Your task to perform on an android device: check android version Image 0: 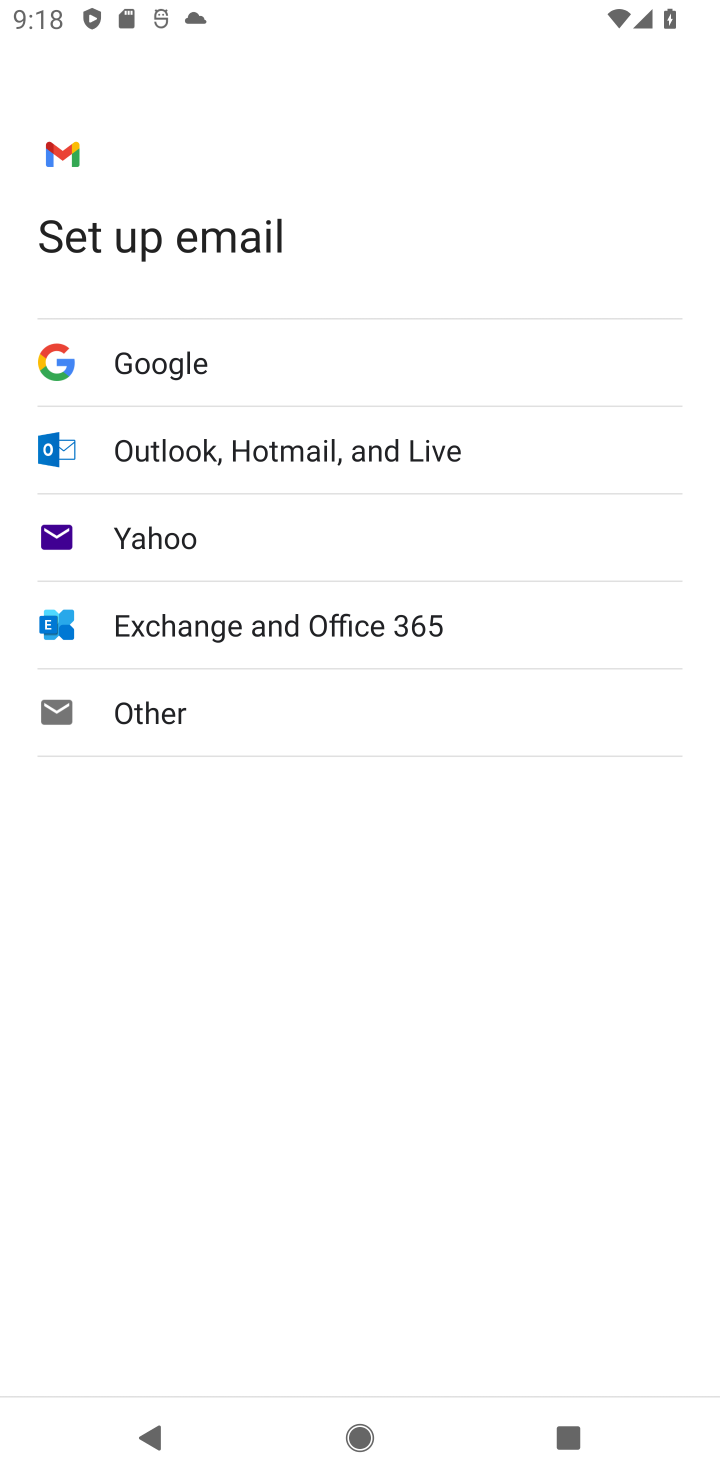
Step 0: press home button
Your task to perform on an android device: check android version Image 1: 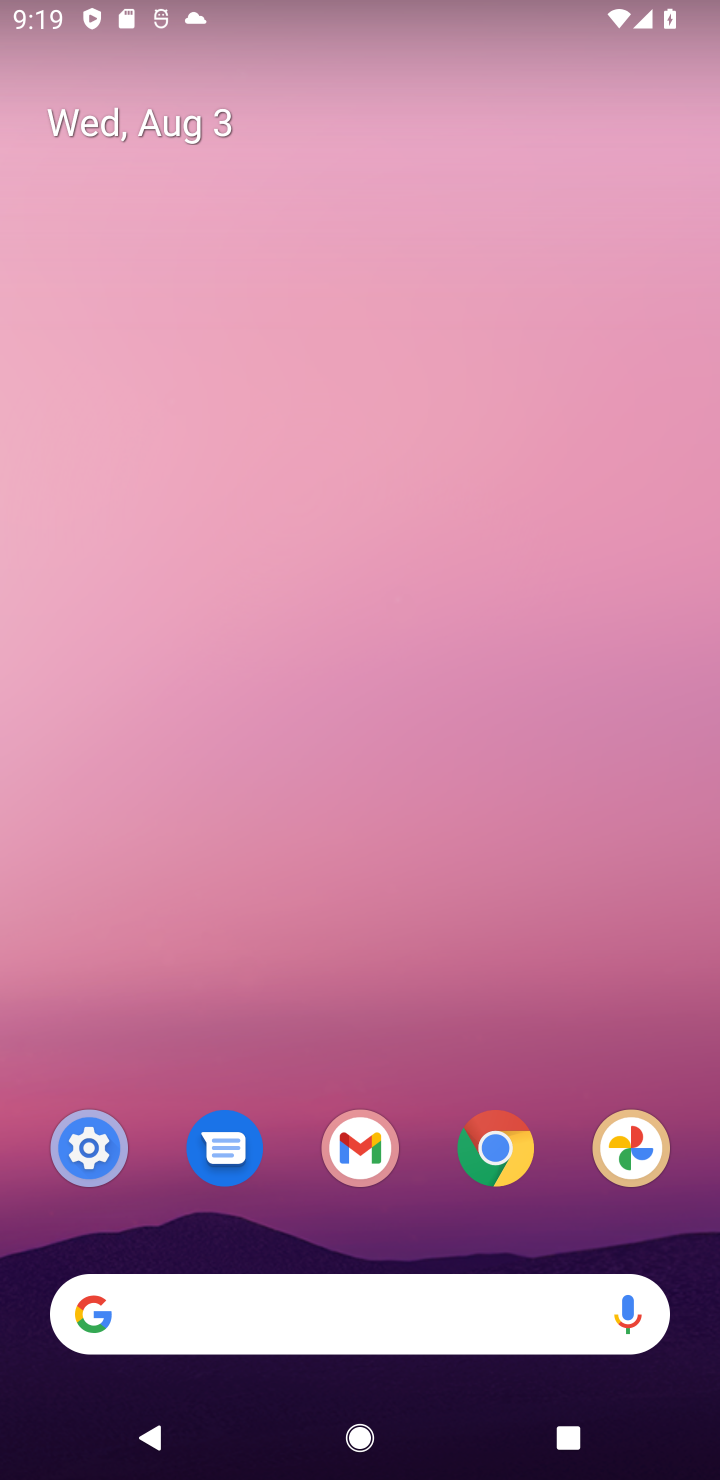
Step 1: drag from (410, 900) to (426, 463)
Your task to perform on an android device: check android version Image 2: 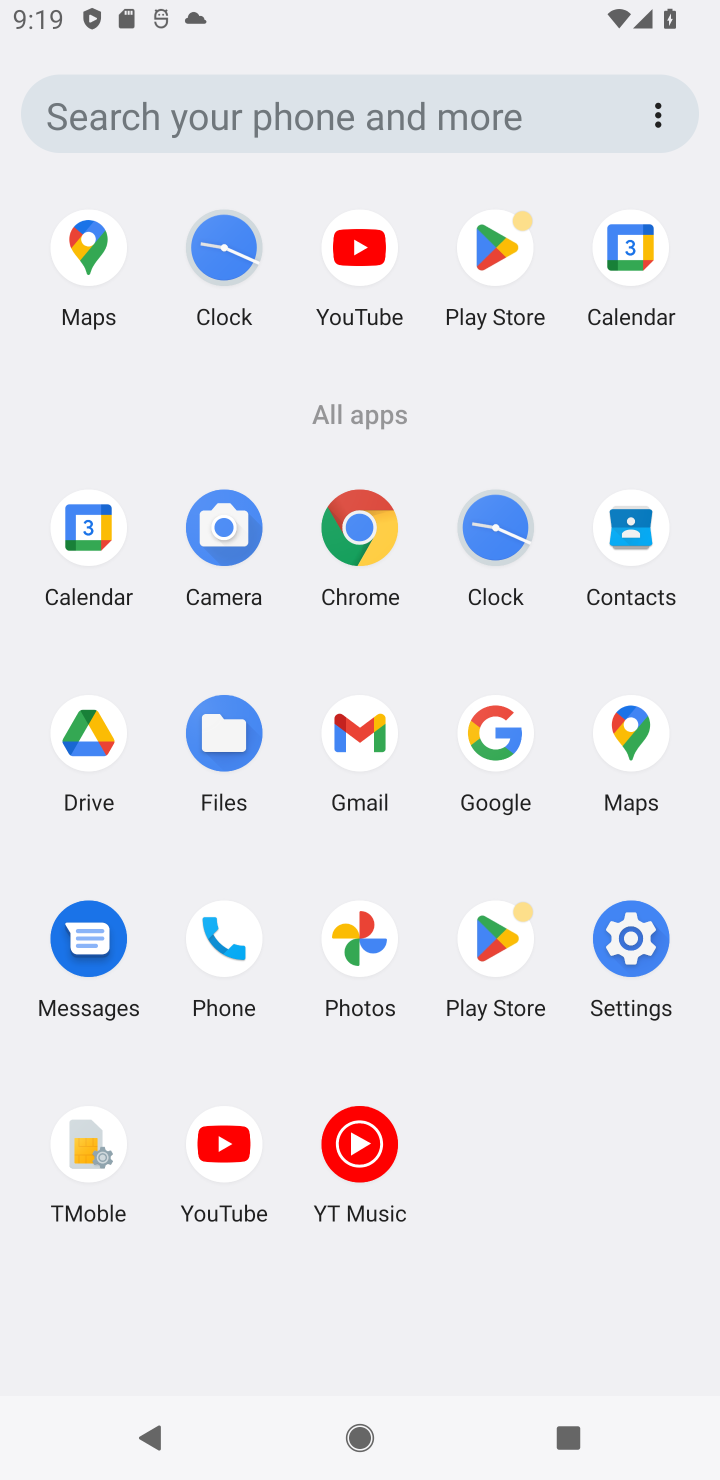
Step 2: click (630, 941)
Your task to perform on an android device: check android version Image 3: 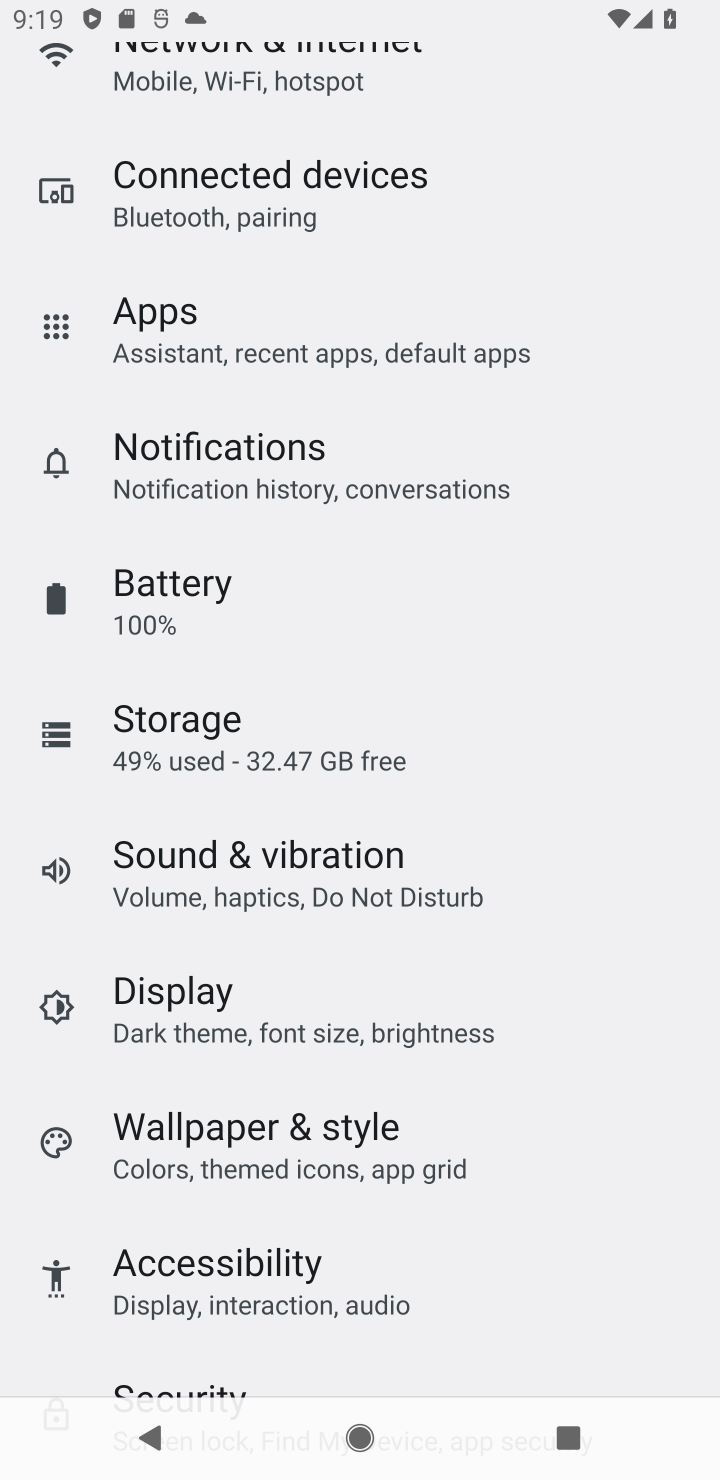
Step 3: drag from (368, 1179) to (453, 433)
Your task to perform on an android device: check android version Image 4: 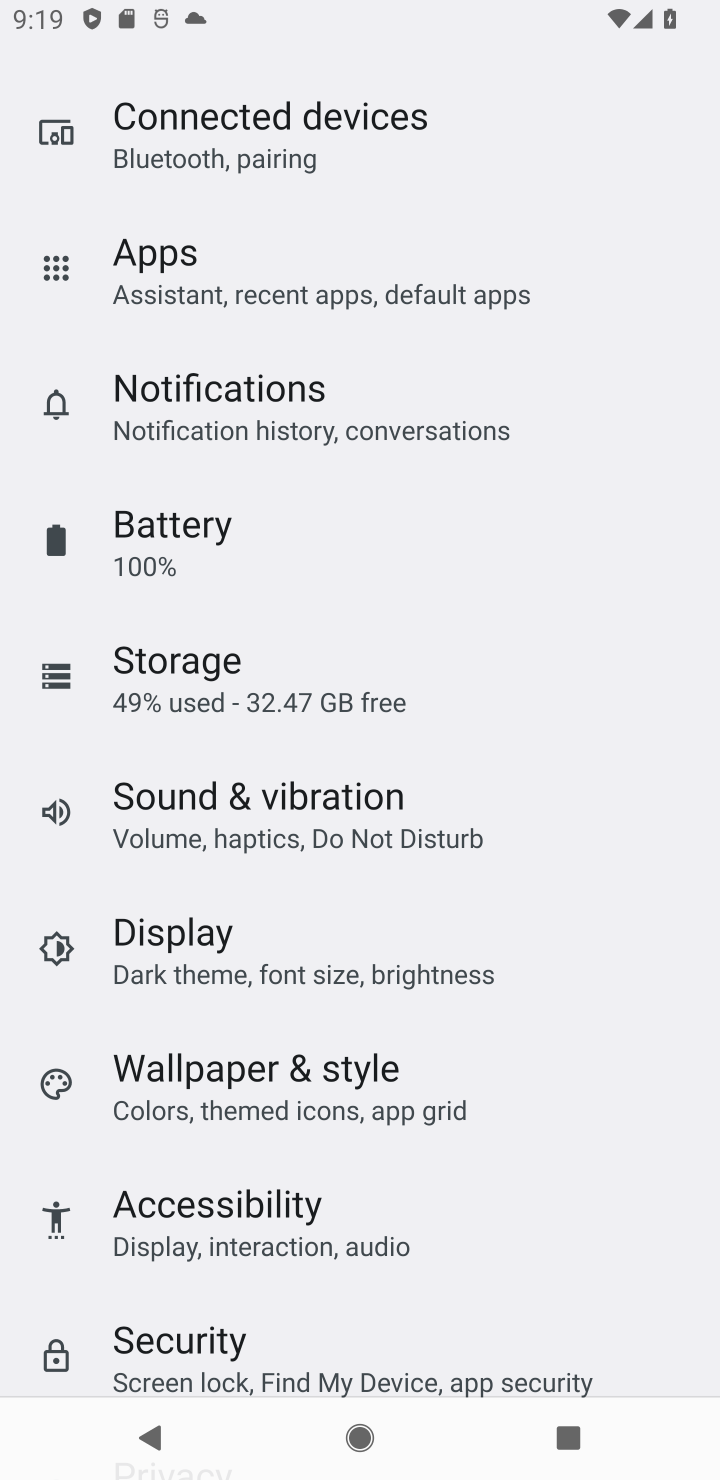
Step 4: drag from (263, 1307) to (294, 461)
Your task to perform on an android device: check android version Image 5: 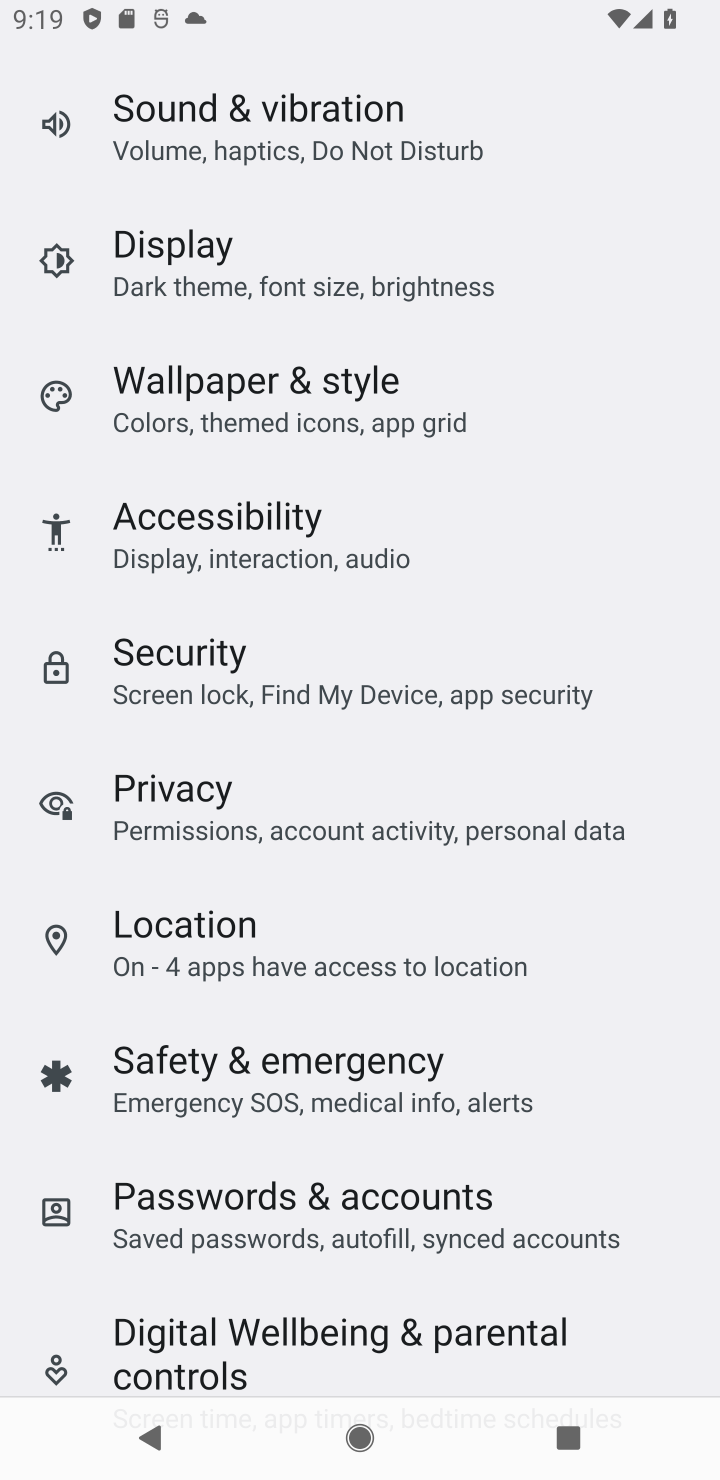
Step 5: drag from (247, 1291) to (370, 83)
Your task to perform on an android device: check android version Image 6: 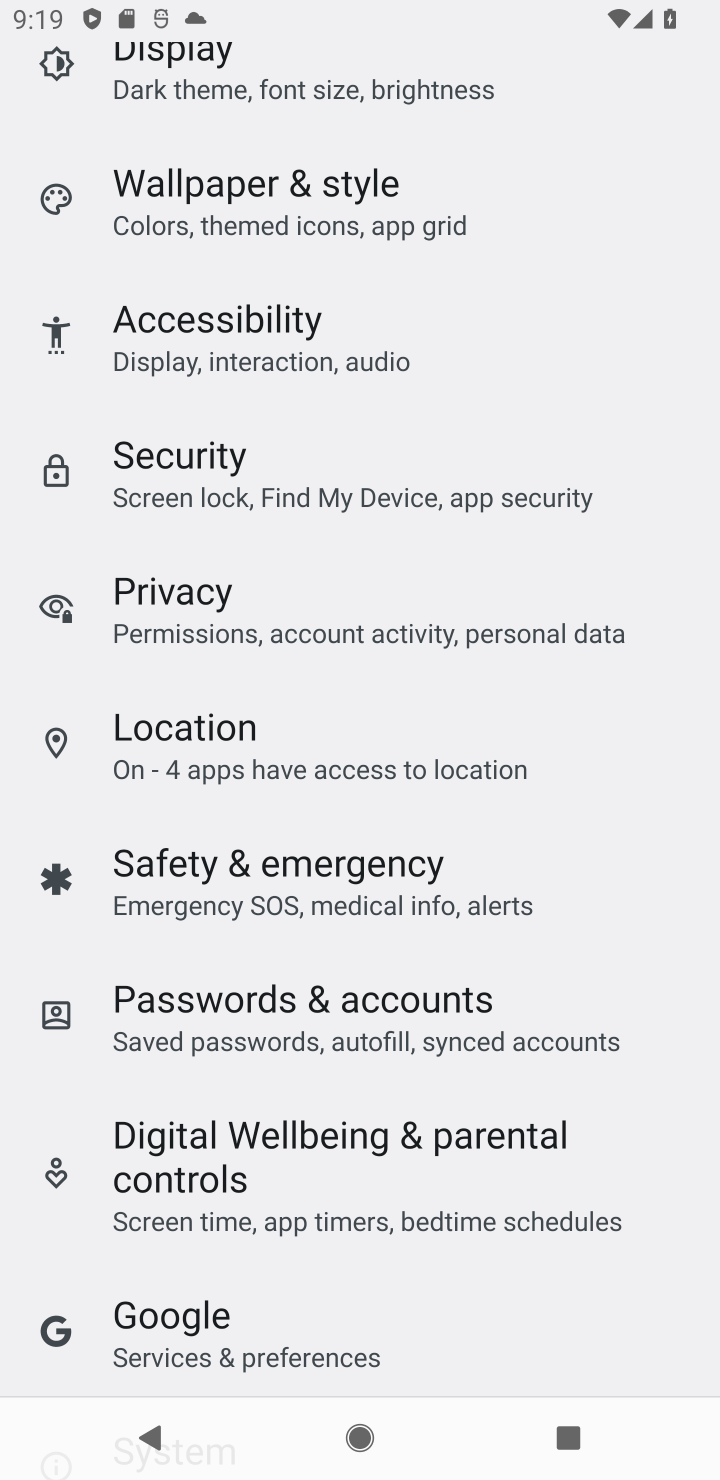
Step 6: drag from (345, 1111) to (570, 143)
Your task to perform on an android device: check android version Image 7: 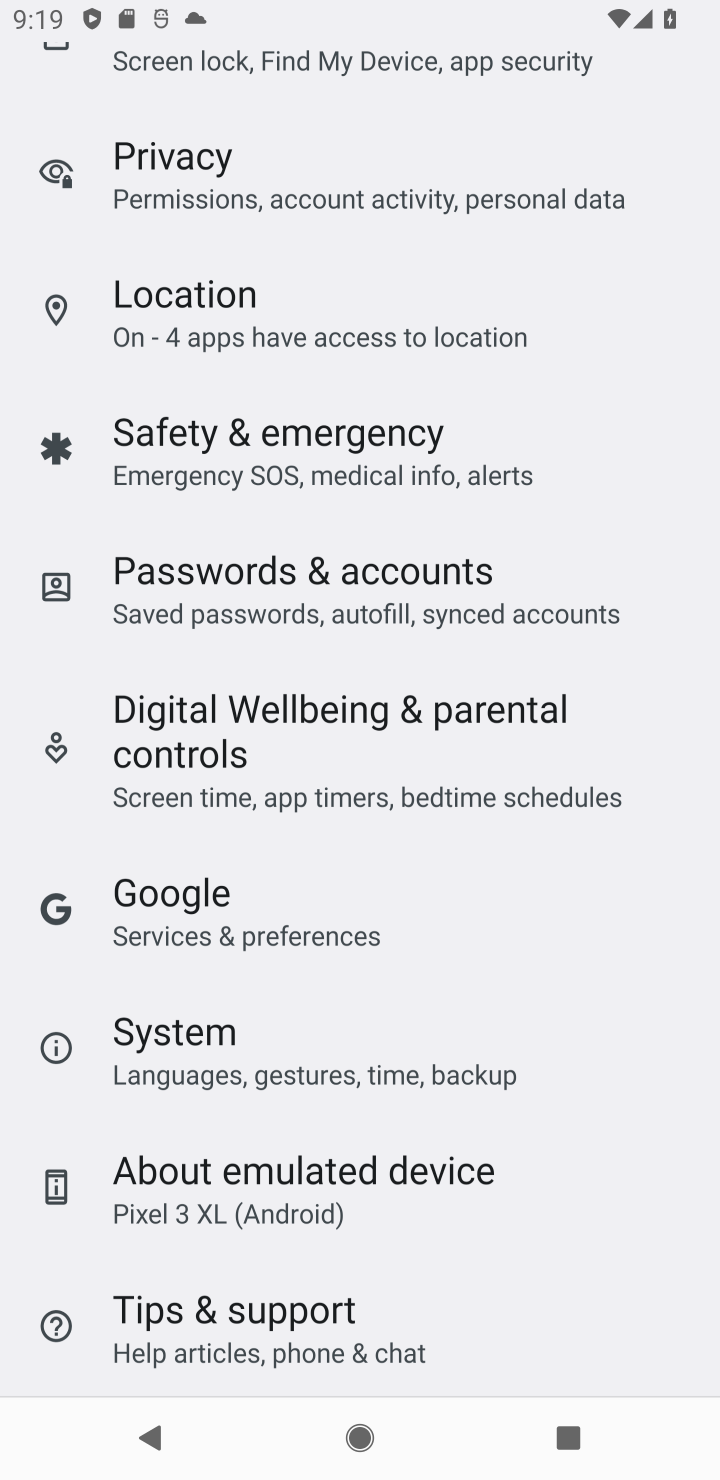
Step 7: drag from (290, 1188) to (414, 486)
Your task to perform on an android device: check android version Image 8: 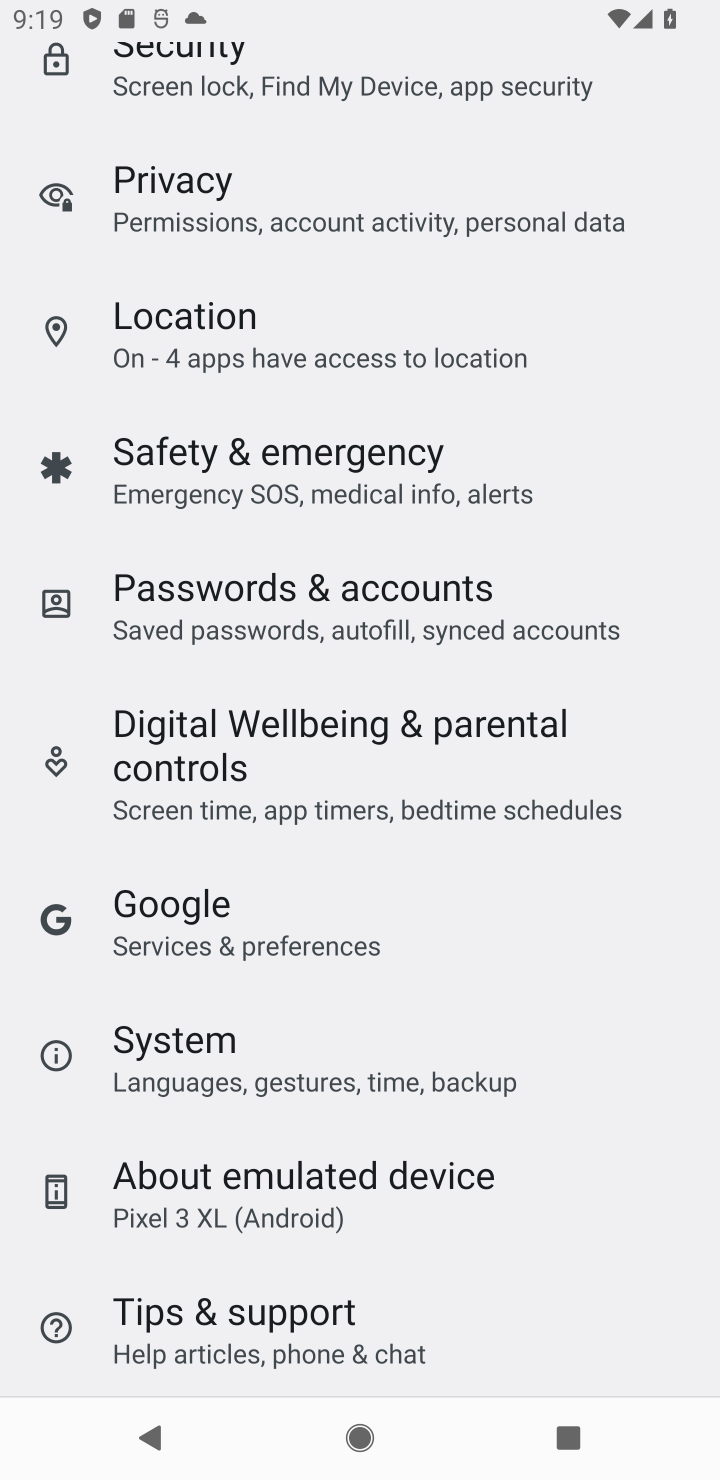
Step 8: click (223, 1227)
Your task to perform on an android device: check android version Image 9: 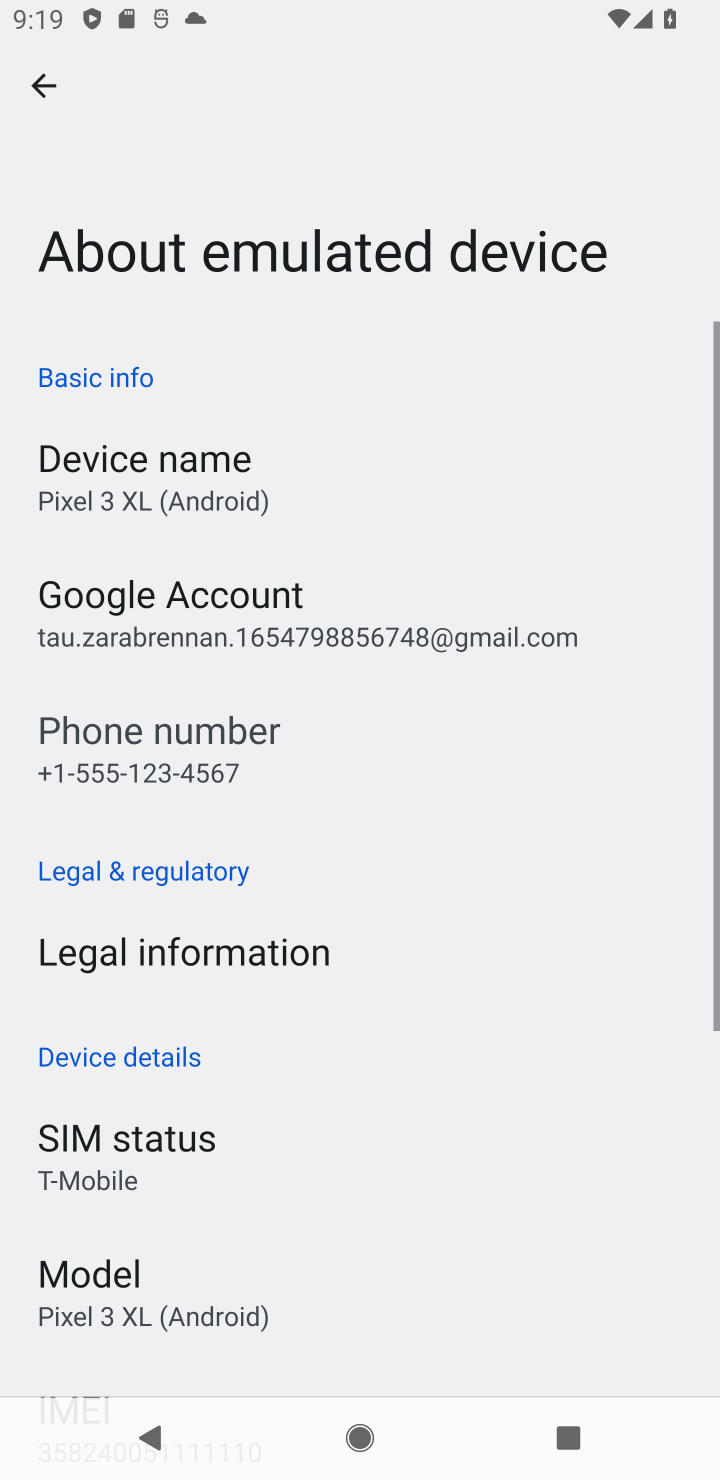
Step 9: task complete